Your task to perform on an android device: set an alarm Image 0: 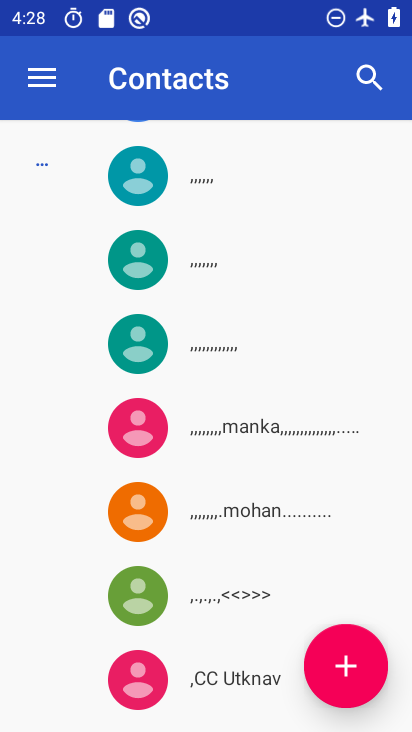
Step 0: press home button
Your task to perform on an android device: set an alarm Image 1: 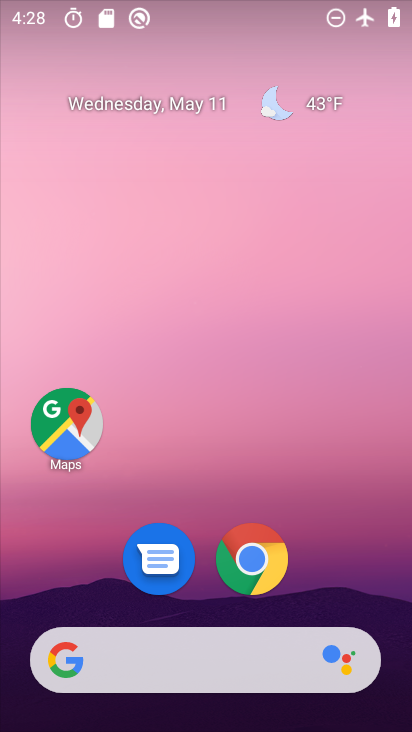
Step 1: drag from (363, 494) to (209, 68)
Your task to perform on an android device: set an alarm Image 2: 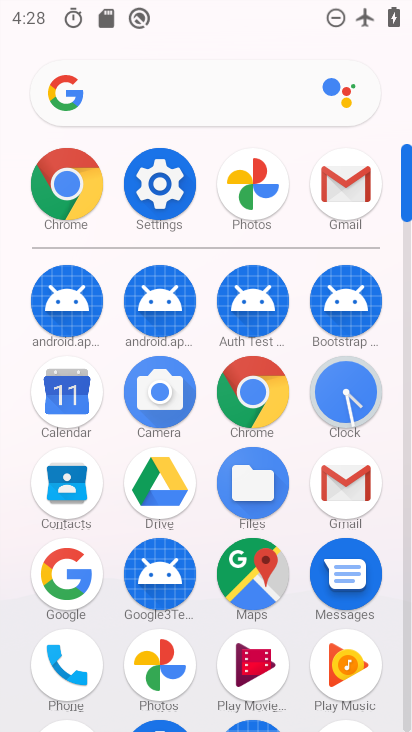
Step 2: click (344, 397)
Your task to perform on an android device: set an alarm Image 3: 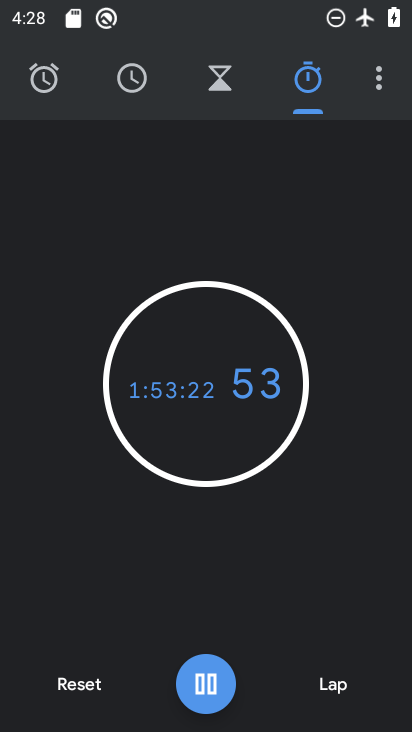
Step 3: click (43, 86)
Your task to perform on an android device: set an alarm Image 4: 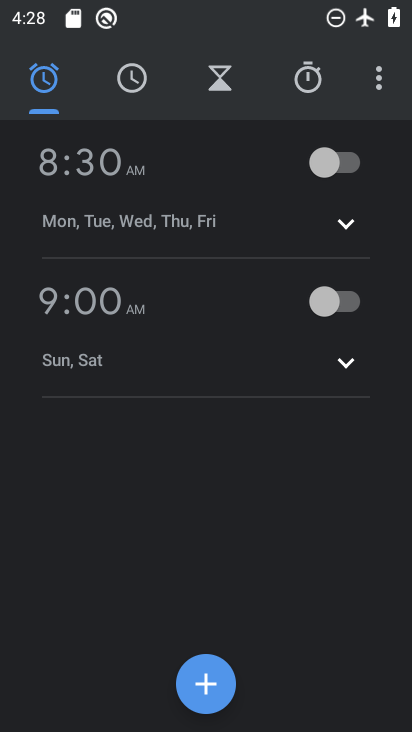
Step 4: click (327, 157)
Your task to perform on an android device: set an alarm Image 5: 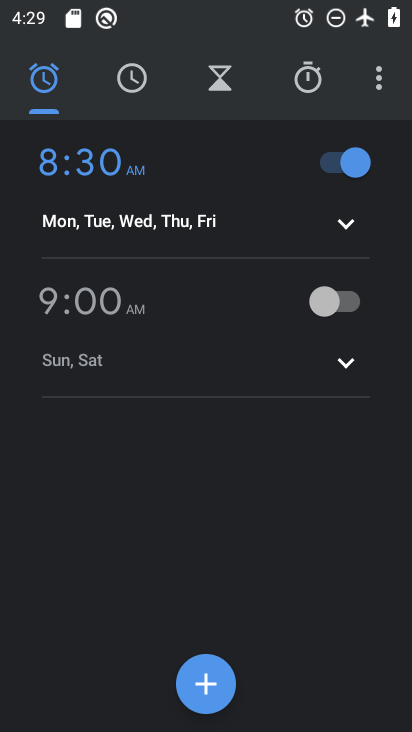
Step 5: task complete